Your task to perform on an android device: Show me recent news Image 0: 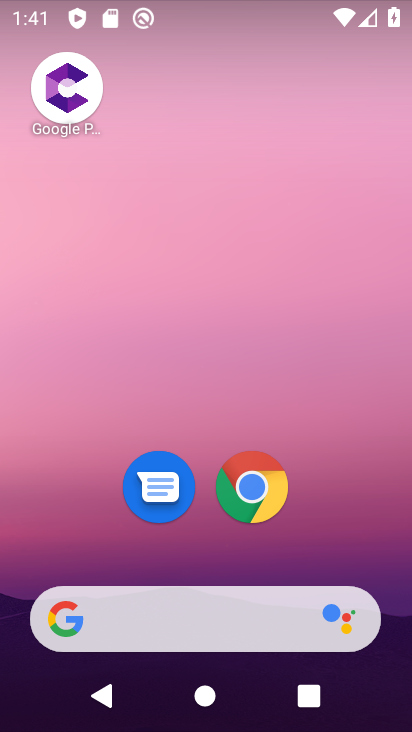
Step 0: drag from (204, 562) to (123, 80)
Your task to perform on an android device: Show me recent news Image 1: 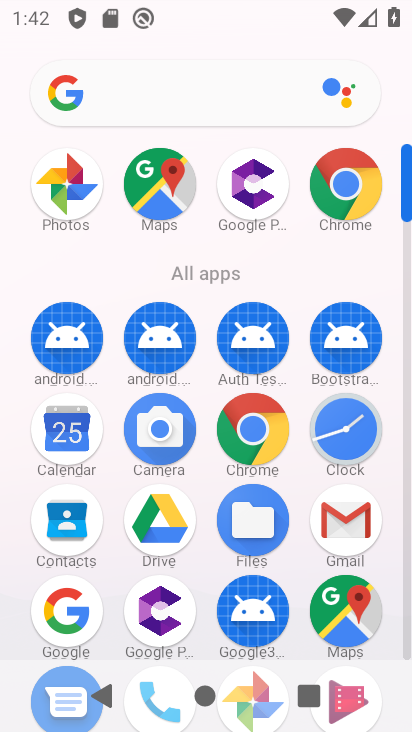
Step 1: click (73, 613)
Your task to perform on an android device: Show me recent news Image 2: 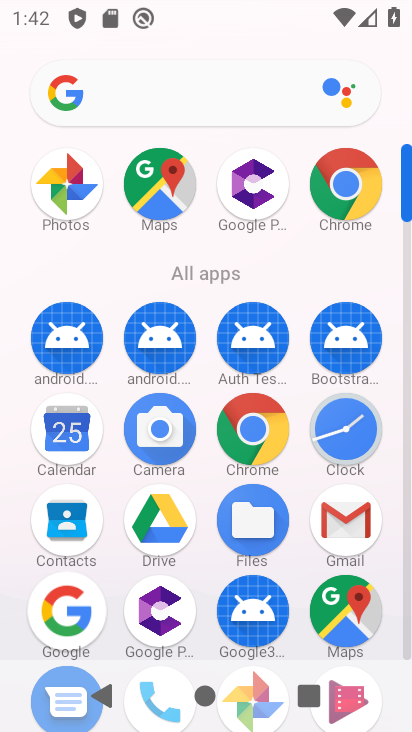
Step 2: click (63, 625)
Your task to perform on an android device: Show me recent news Image 3: 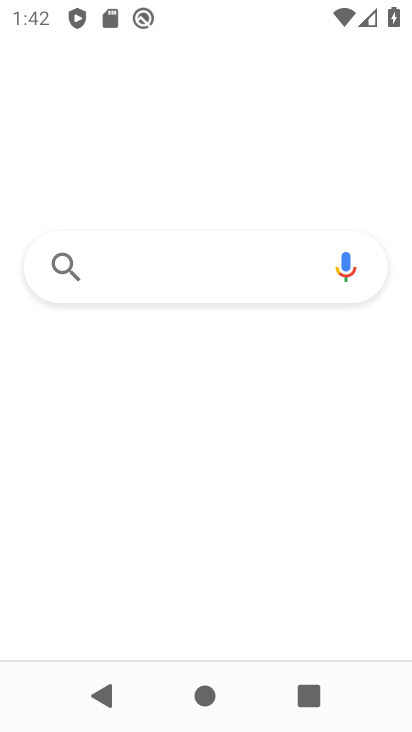
Step 3: click (99, 254)
Your task to perform on an android device: Show me recent news Image 4: 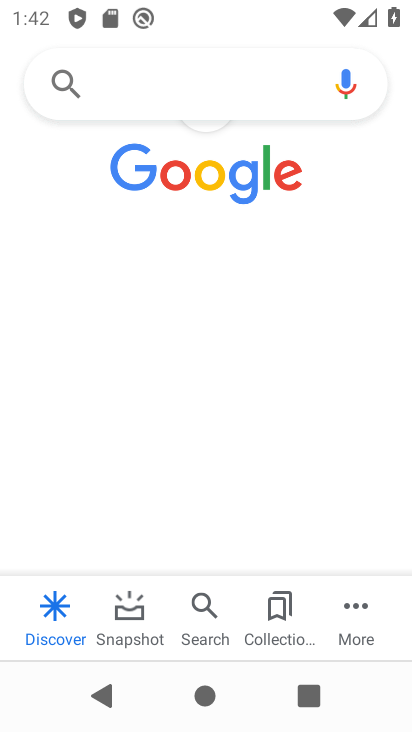
Step 4: click (62, 266)
Your task to perform on an android device: Show me recent news Image 5: 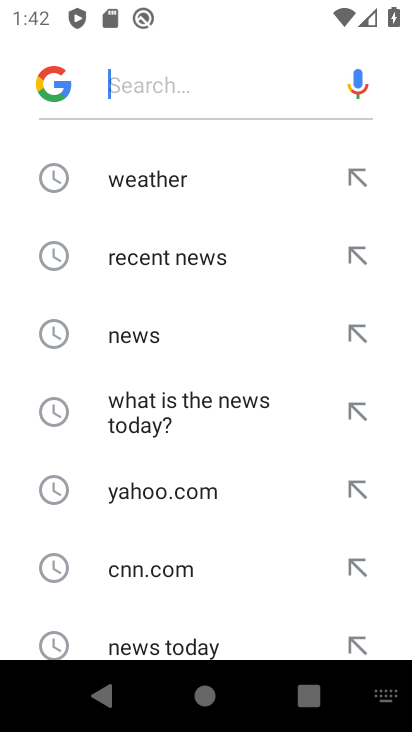
Step 5: click (159, 264)
Your task to perform on an android device: Show me recent news Image 6: 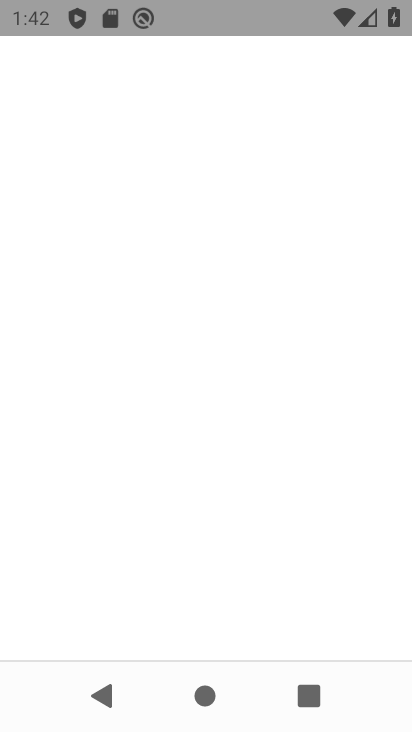
Step 6: task complete